Your task to perform on an android device: Go to wifi settings Image 0: 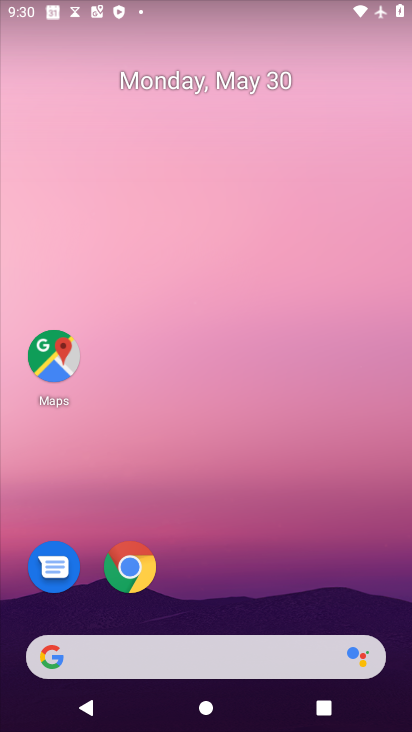
Step 0: drag from (218, 562) to (225, 156)
Your task to perform on an android device: Go to wifi settings Image 1: 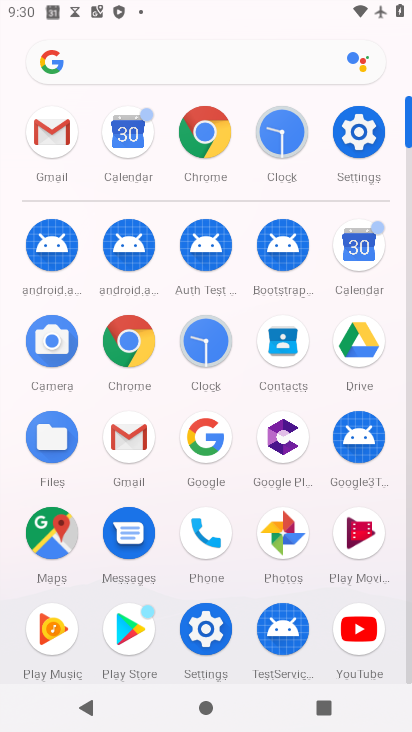
Step 1: click (362, 131)
Your task to perform on an android device: Go to wifi settings Image 2: 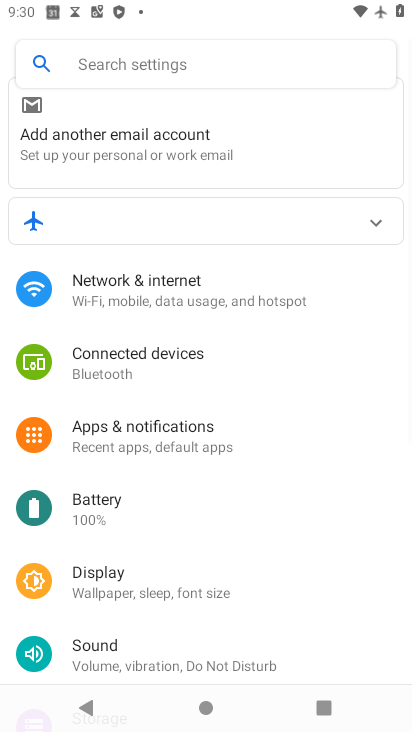
Step 2: click (185, 185)
Your task to perform on an android device: Go to wifi settings Image 3: 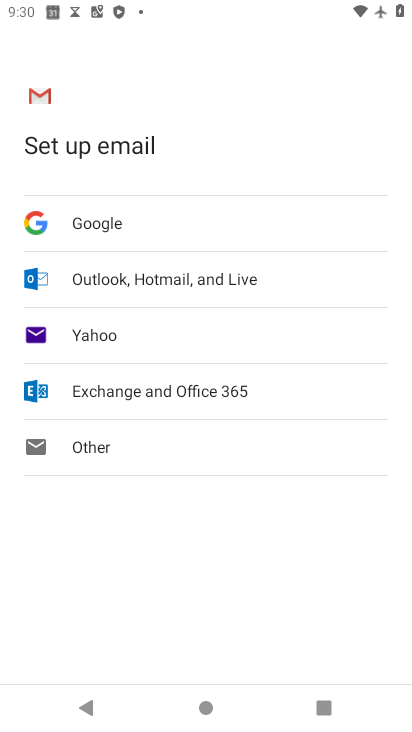
Step 3: press home button
Your task to perform on an android device: Go to wifi settings Image 4: 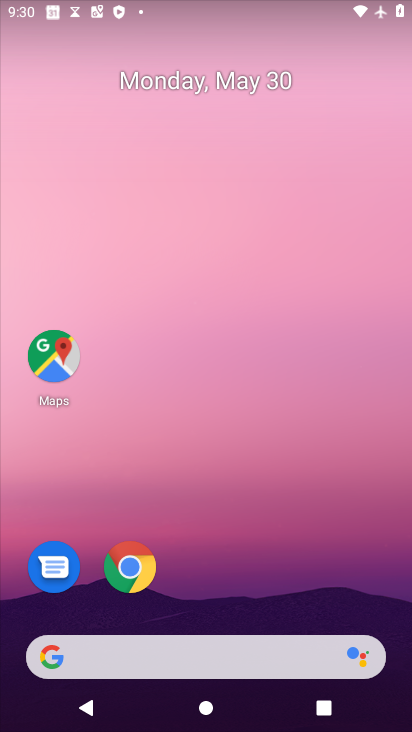
Step 4: drag from (245, 599) to (336, 33)
Your task to perform on an android device: Go to wifi settings Image 5: 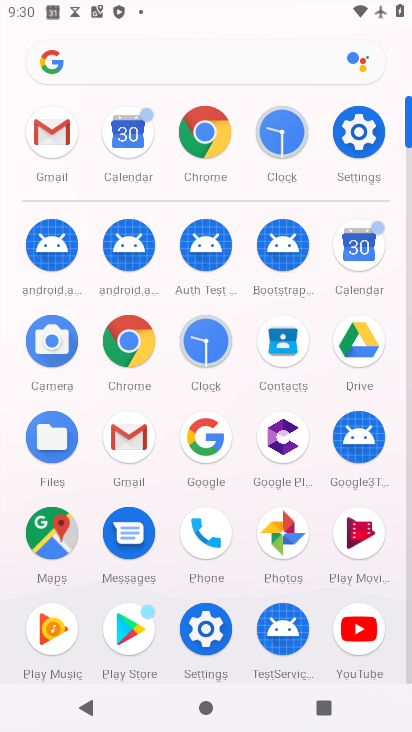
Step 5: click (353, 127)
Your task to perform on an android device: Go to wifi settings Image 6: 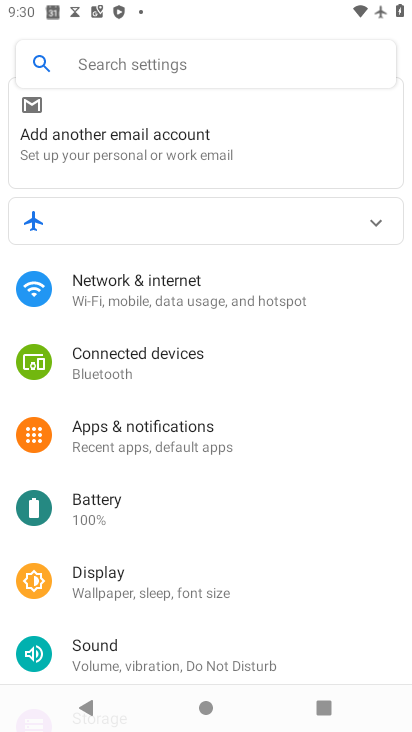
Step 6: click (228, 288)
Your task to perform on an android device: Go to wifi settings Image 7: 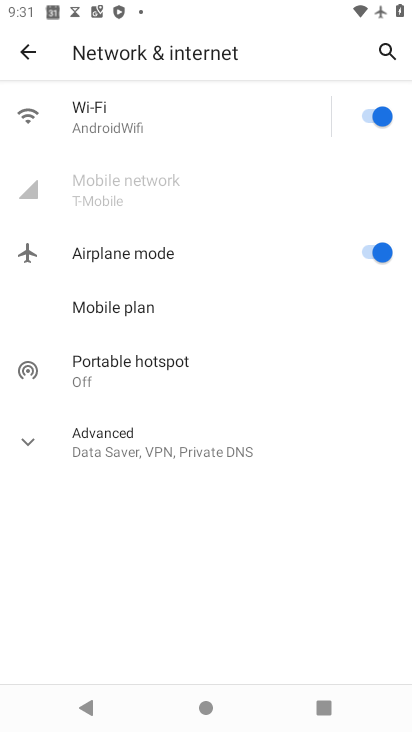
Step 7: click (123, 127)
Your task to perform on an android device: Go to wifi settings Image 8: 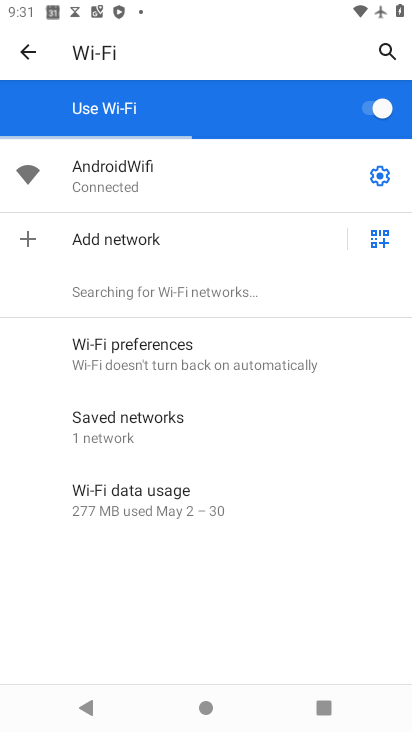
Step 8: task complete